Your task to perform on an android device: open device folders in google photos Image 0: 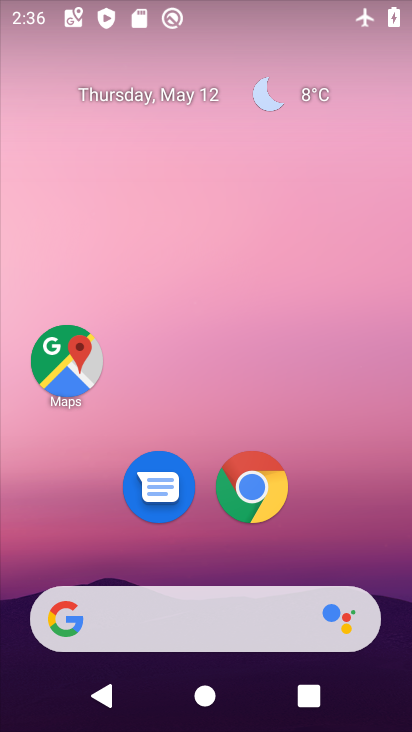
Step 0: drag from (324, 449) to (287, 37)
Your task to perform on an android device: open device folders in google photos Image 1: 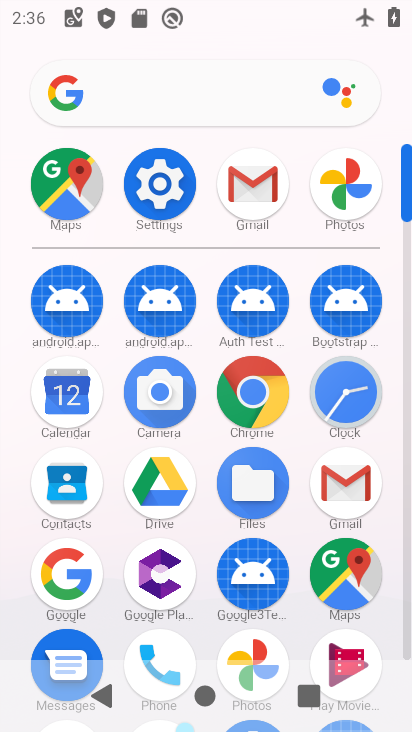
Step 1: click (349, 178)
Your task to perform on an android device: open device folders in google photos Image 2: 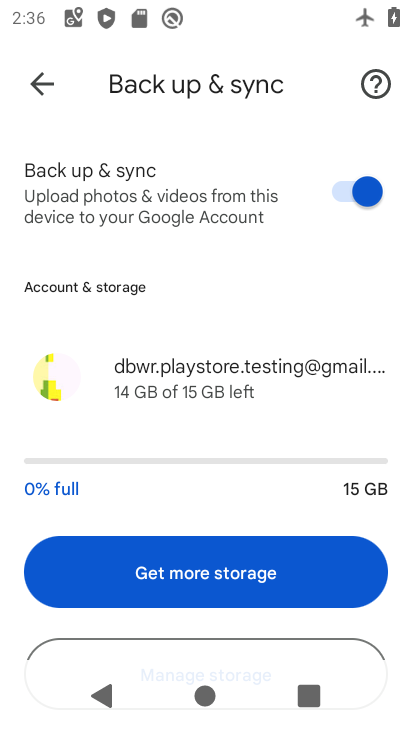
Step 2: drag from (248, 466) to (162, 46)
Your task to perform on an android device: open device folders in google photos Image 3: 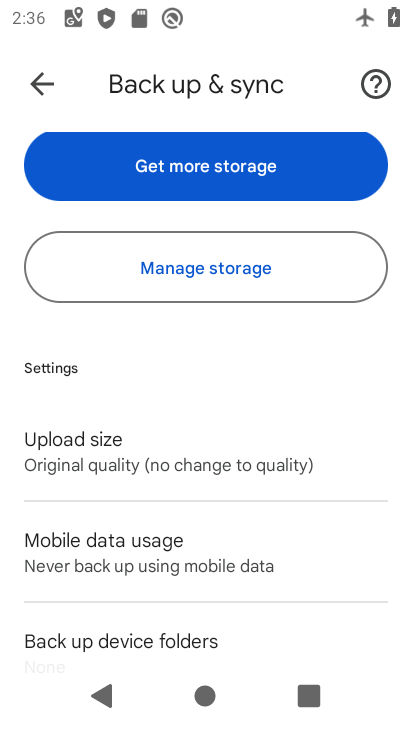
Step 3: click (45, 87)
Your task to perform on an android device: open device folders in google photos Image 4: 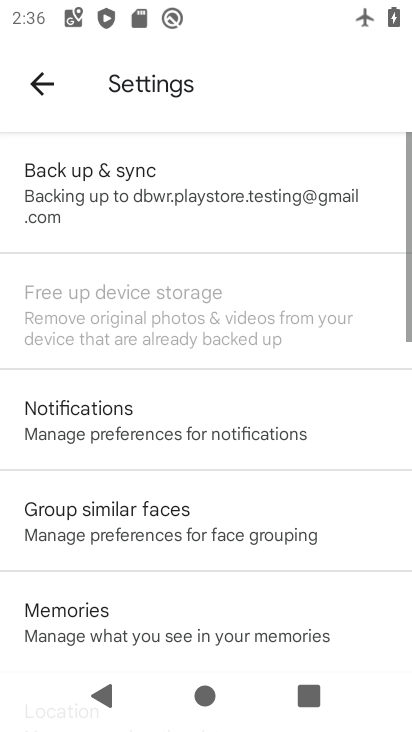
Step 4: click (45, 87)
Your task to perform on an android device: open device folders in google photos Image 5: 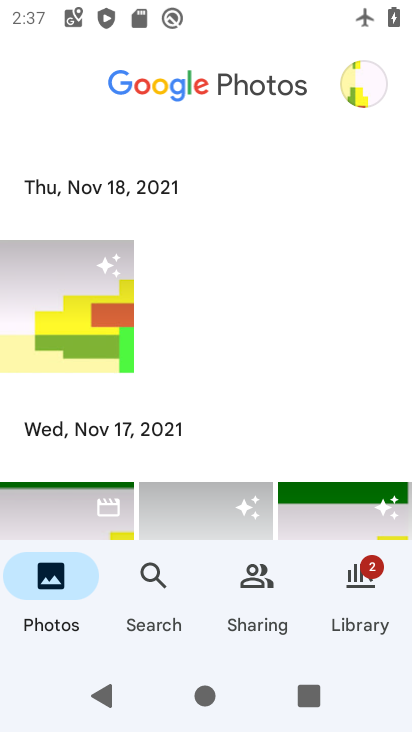
Step 5: click (366, 84)
Your task to perform on an android device: open device folders in google photos Image 6: 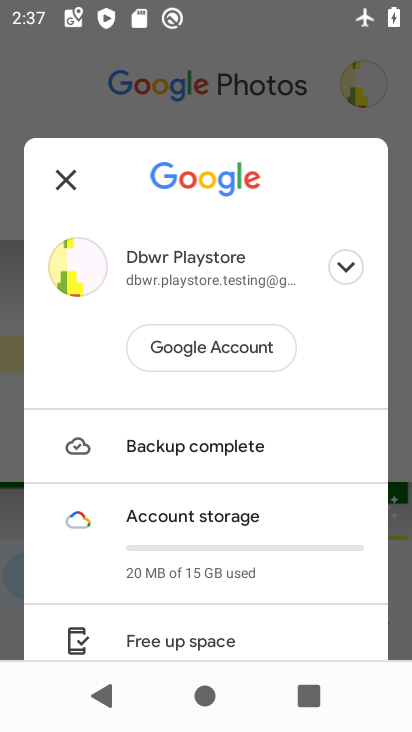
Step 6: drag from (247, 549) to (280, 511)
Your task to perform on an android device: open device folders in google photos Image 7: 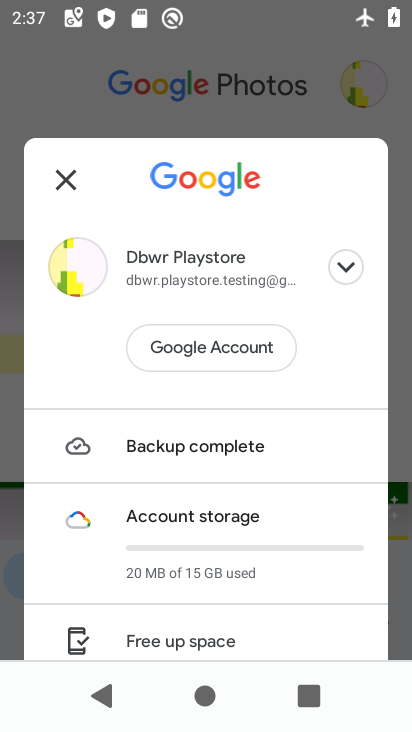
Step 7: click (109, 686)
Your task to perform on an android device: open device folders in google photos Image 8: 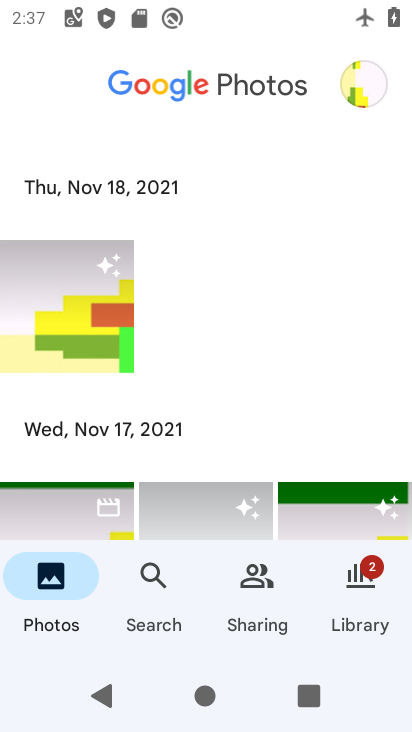
Step 8: click (354, 598)
Your task to perform on an android device: open device folders in google photos Image 9: 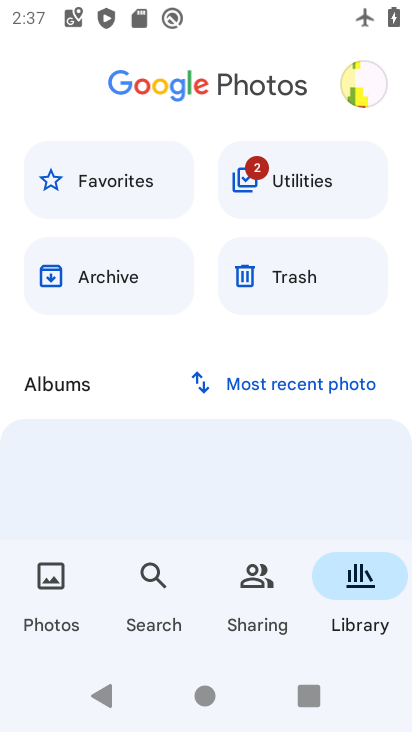
Step 9: click (290, 198)
Your task to perform on an android device: open device folders in google photos Image 10: 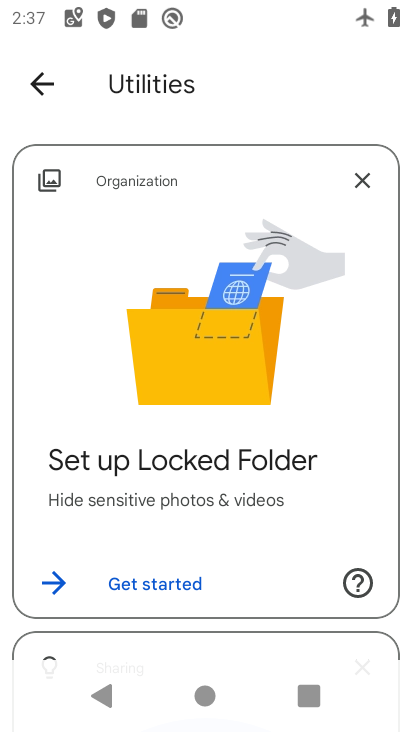
Step 10: drag from (235, 531) to (266, 14)
Your task to perform on an android device: open device folders in google photos Image 11: 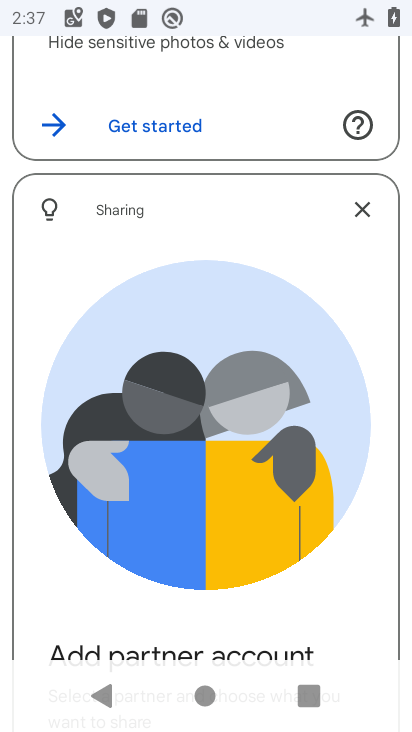
Step 11: drag from (173, 445) to (285, 82)
Your task to perform on an android device: open device folders in google photos Image 12: 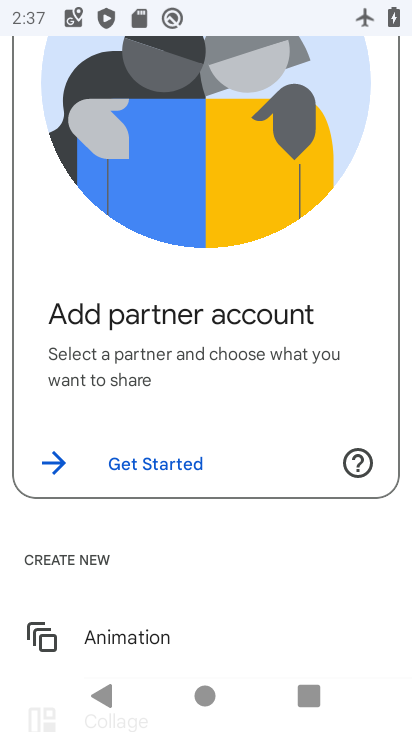
Step 12: drag from (133, 493) to (279, 121)
Your task to perform on an android device: open device folders in google photos Image 13: 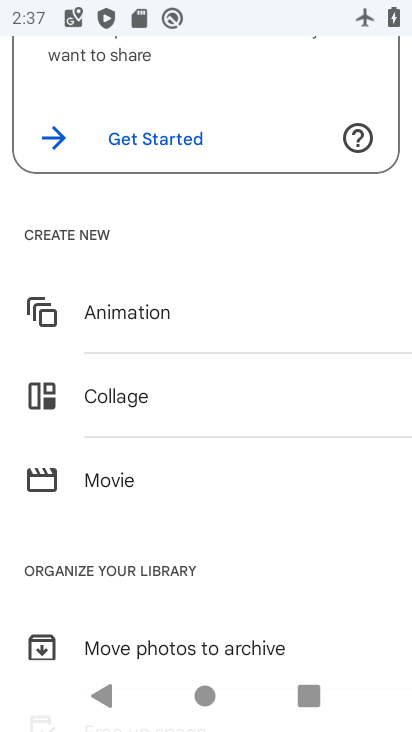
Step 13: drag from (157, 611) to (226, 337)
Your task to perform on an android device: open device folders in google photos Image 14: 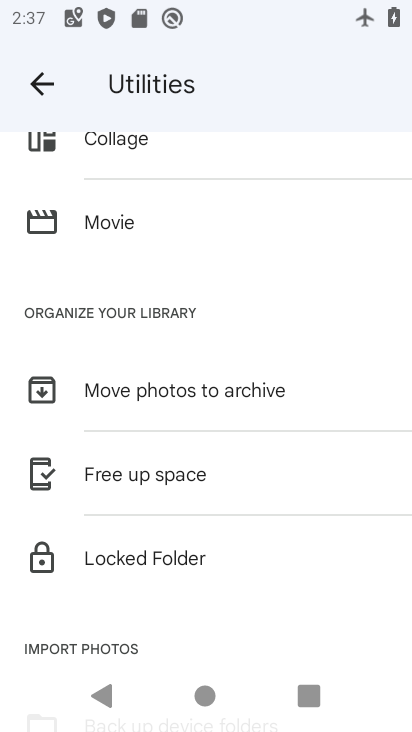
Step 14: drag from (197, 596) to (317, 138)
Your task to perform on an android device: open device folders in google photos Image 15: 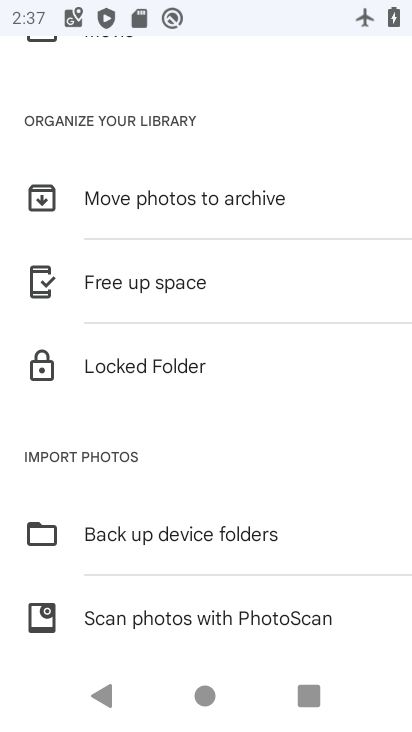
Step 15: drag from (230, 332) to (269, 653)
Your task to perform on an android device: open device folders in google photos Image 16: 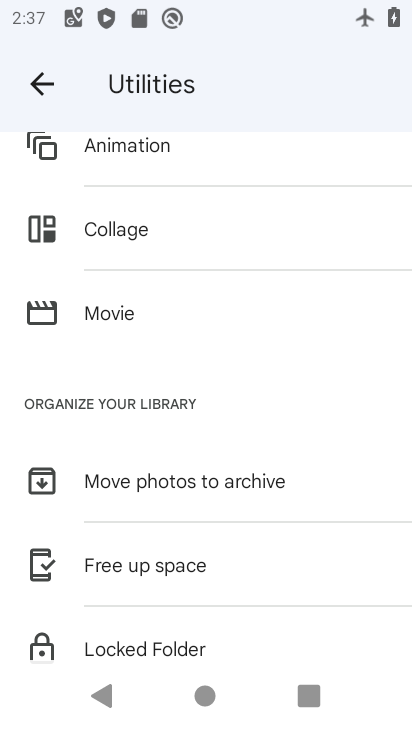
Step 16: click (50, 87)
Your task to perform on an android device: open device folders in google photos Image 17: 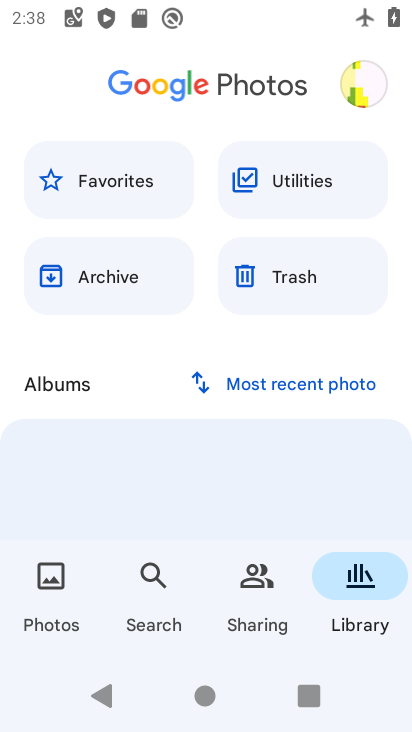
Step 17: task complete